Your task to perform on an android device: turn on sleep mode Image 0: 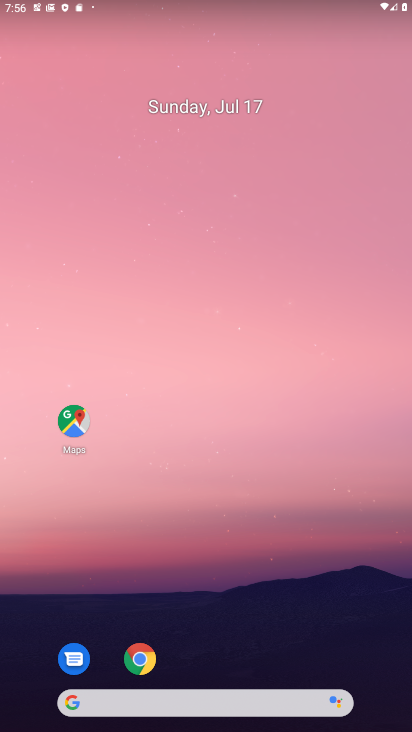
Step 0: drag from (211, 670) to (252, 202)
Your task to perform on an android device: turn on sleep mode Image 1: 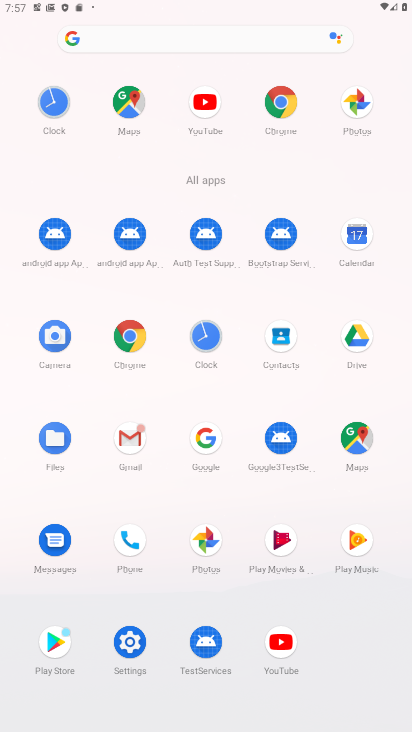
Step 1: click (139, 633)
Your task to perform on an android device: turn on sleep mode Image 2: 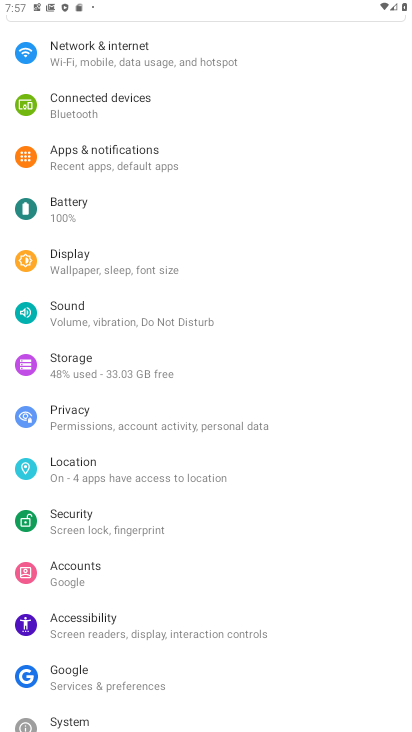
Step 2: click (115, 255)
Your task to perform on an android device: turn on sleep mode Image 3: 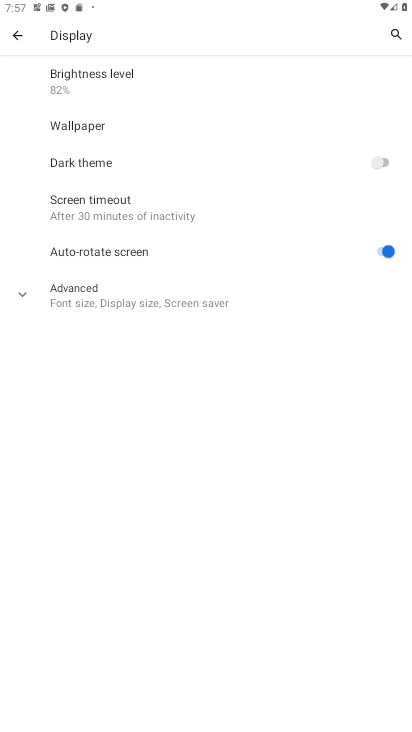
Step 3: click (157, 209)
Your task to perform on an android device: turn on sleep mode Image 4: 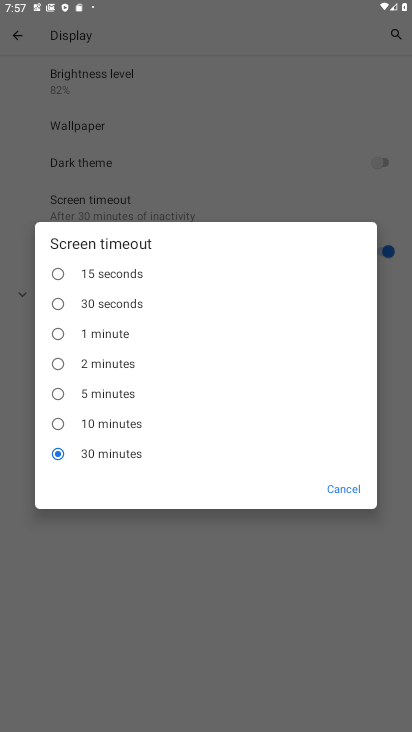
Step 4: click (123, 302)
Your task to perform on an android device: turn on sleep mode Image 5: 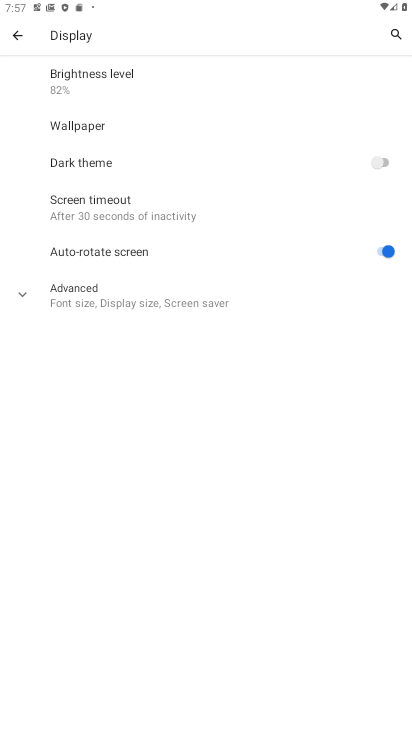
Step 5: task complete